Your task to perform on an android device: Open ESPN.com Image 0: 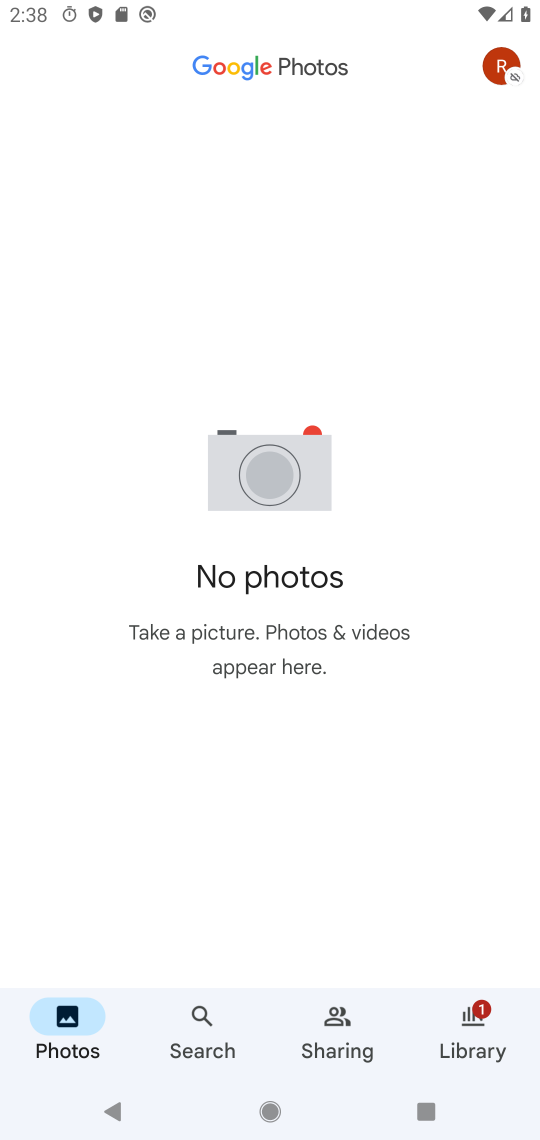
Step 0: press home button
Your task to perform on an android device: Open ESPN.com Image 1: 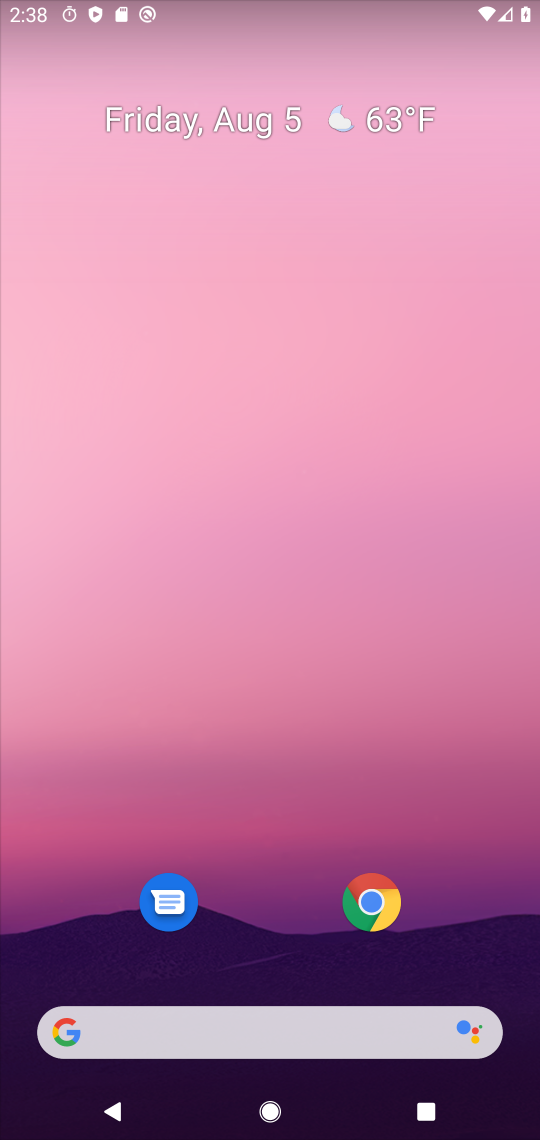
Step 1: drag from (337, 1077) to (349, 356)
Your task to perform on an android device: Open ESPN.com Image 2: 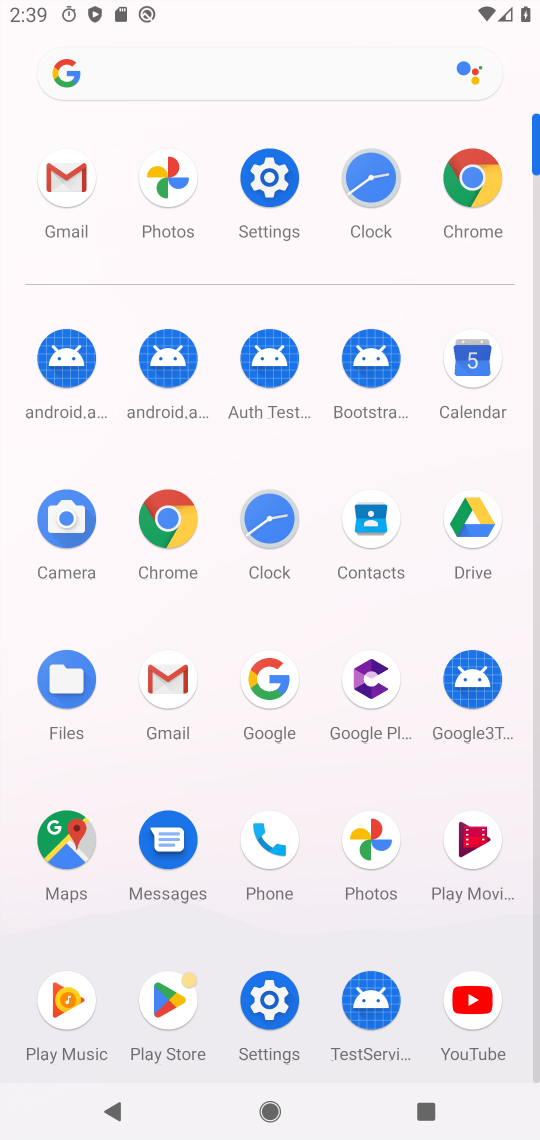
Step 2: click (458, 200)
Your task to perform on an android device: Open ESPN.com Image 3: 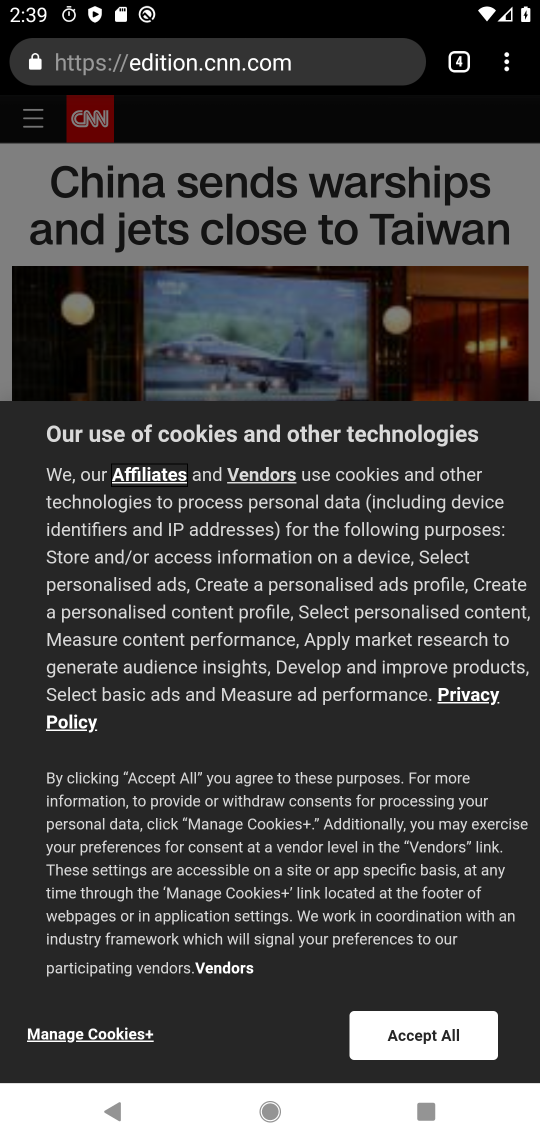
Step 3: click (203, 65)
Your task to perform on an android device: Open ESPN.com Image 4: 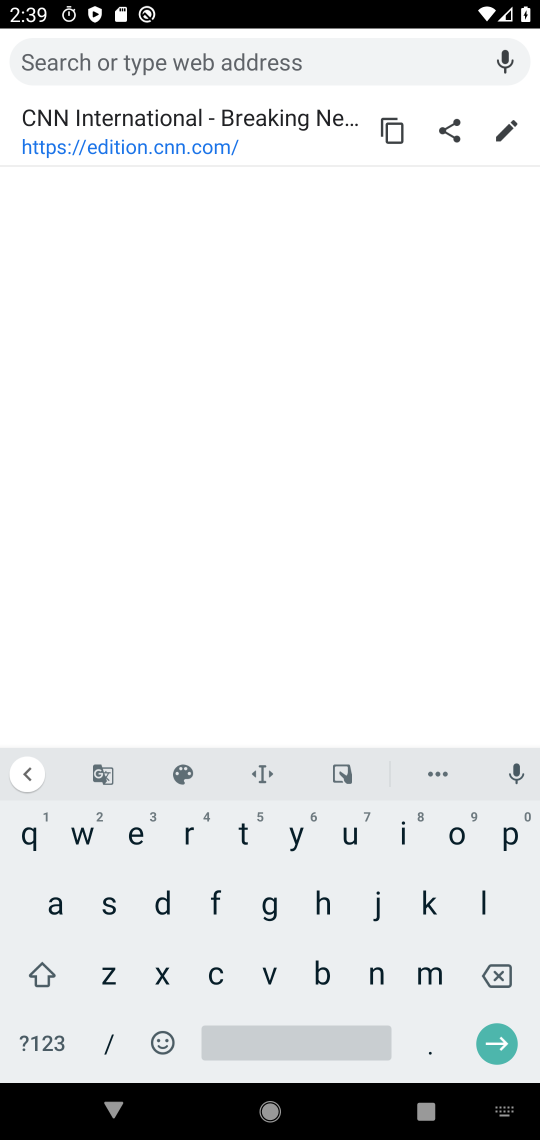
Step 4: click (129, 838)
Your task to perform on an android device: Open ESPN.com Image 5: 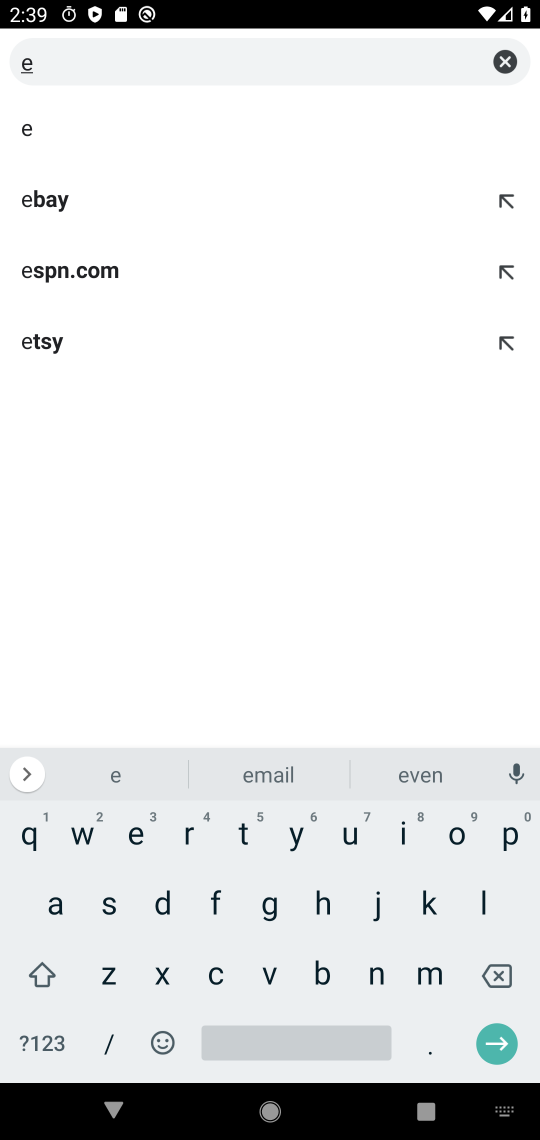
Step 5: click (49, 277)
Your task to perform on an android device: Open ESPN.com Image 6: 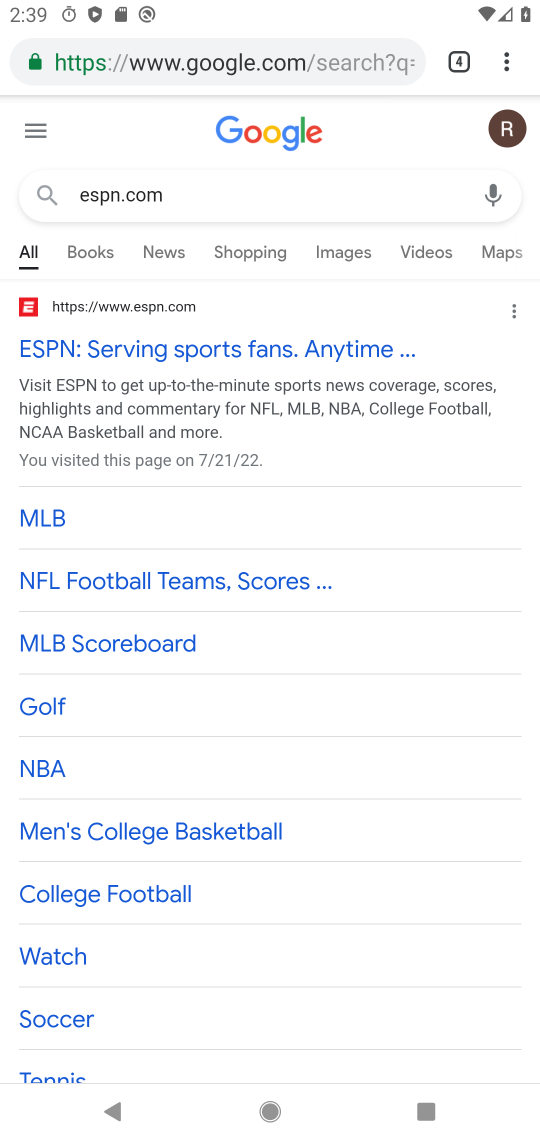
Step 6: click (84, 360)
Your task to perform on an android device: Open ESPN.com Image 7: 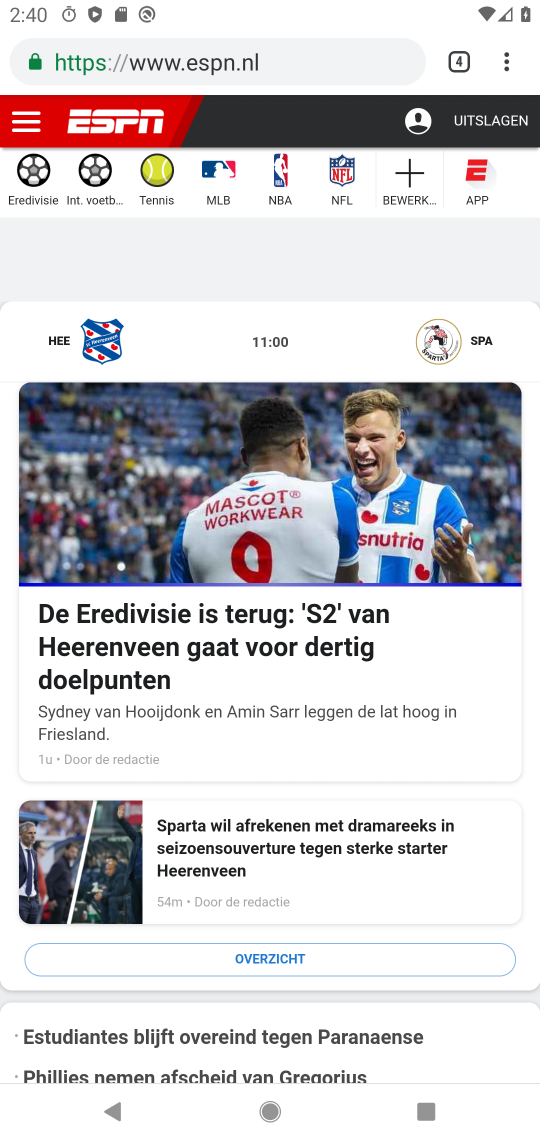
Step 7: task complete